Your task to perform on an android device: check android version Image 0: 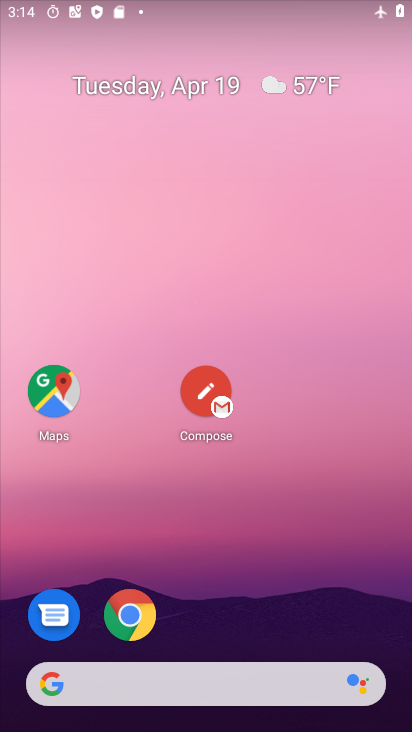
Step 0: drag from (281, 472) to (321, 47)
Your task to perform on an android device: check android version Image 1: 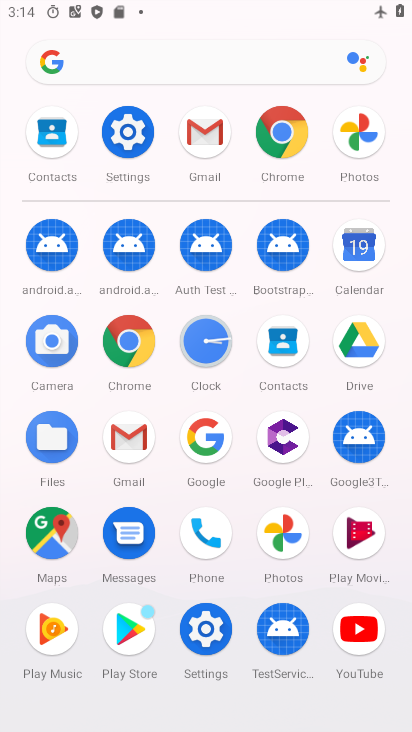
Step 1: click (132, 131)
Your task to perform on an android device: check android version Image 2: 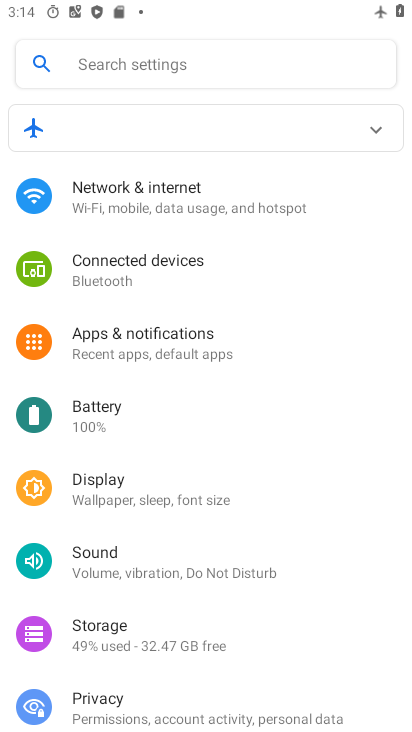
Step 2: drag from (239, 683) to (207, 168)
Your task to perform on an android device: check android version Image 3: 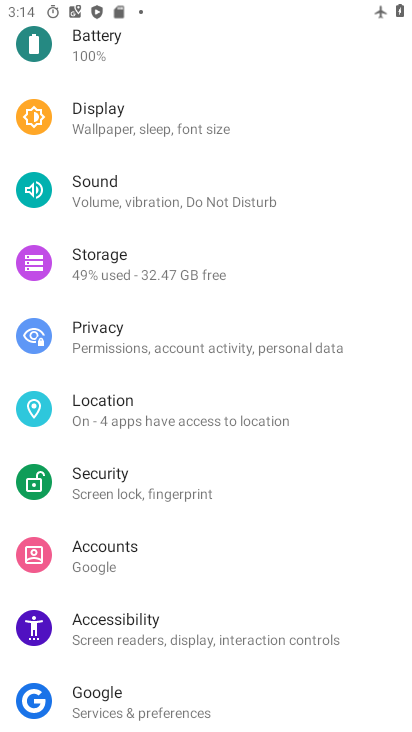
Step 3: drag from (234, 649) to (272, 125)
Your task to perform on an android device: check android version Image 4: 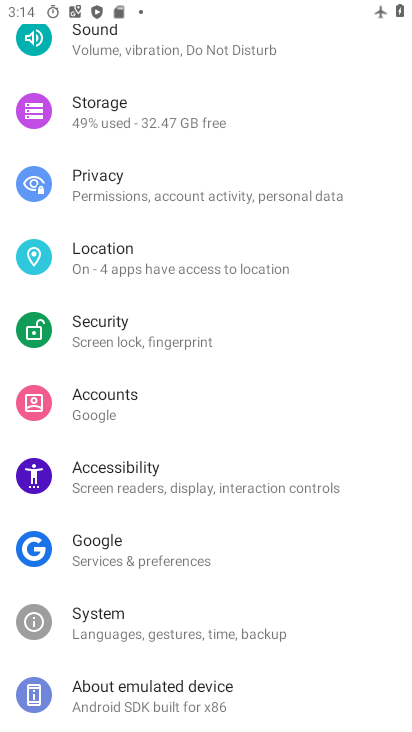
Step 4: click (159, 699)
Your task to perform on an android device: check android version Image 5: 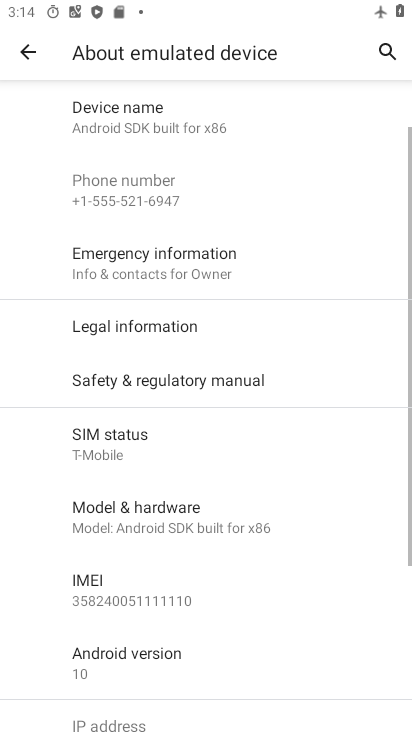
Step 5: click (254, 664)
Your task to perform on an android device: check android version Image 6: 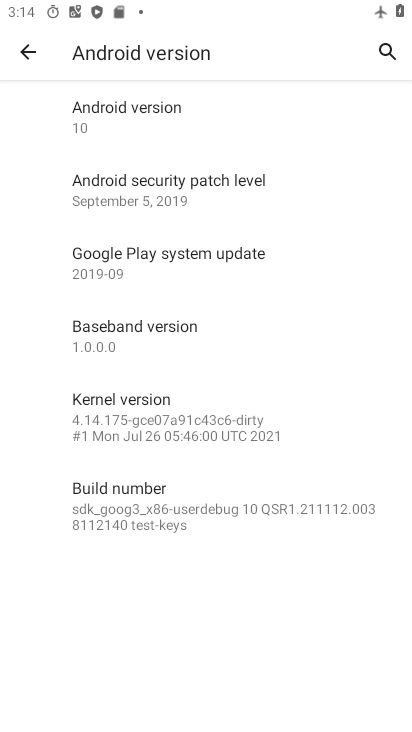
Step 6: task complete